Your task to perform on an android device: Open Google Maps Image 0: 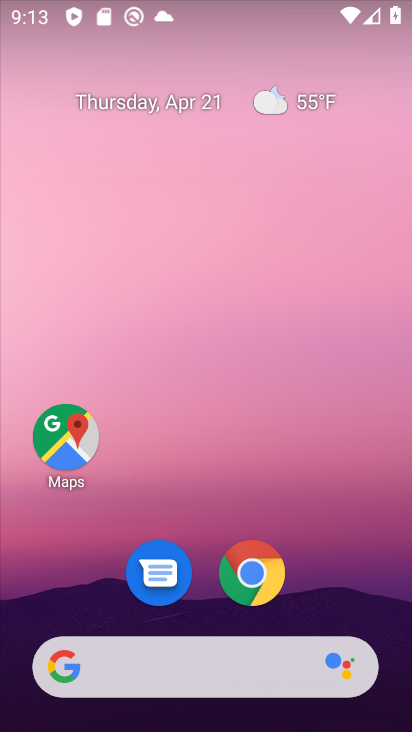
Step 0: click (83, 449)
Your task to perform on an android device: Open Google Maps Image 1: 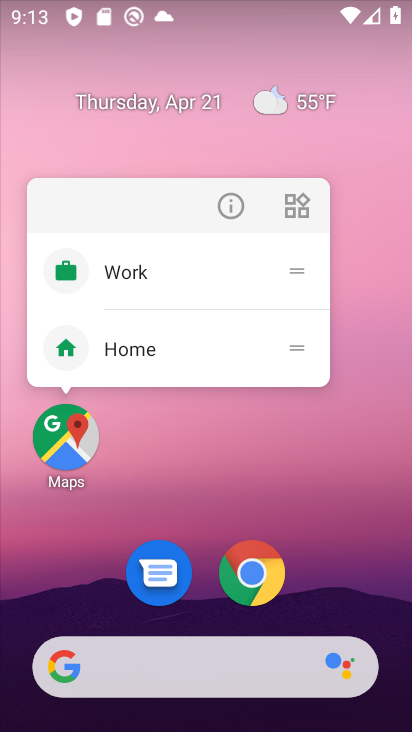
Step 1: click (70, 452)
Your task to perform on an android device: Open Google Maps Image 2: 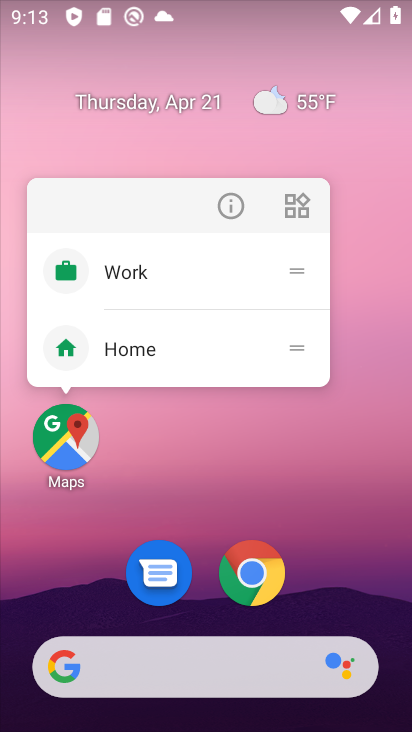
Step 2: click (60, 441)
Your task to perform on an android device: Open Google Maps Image 3: 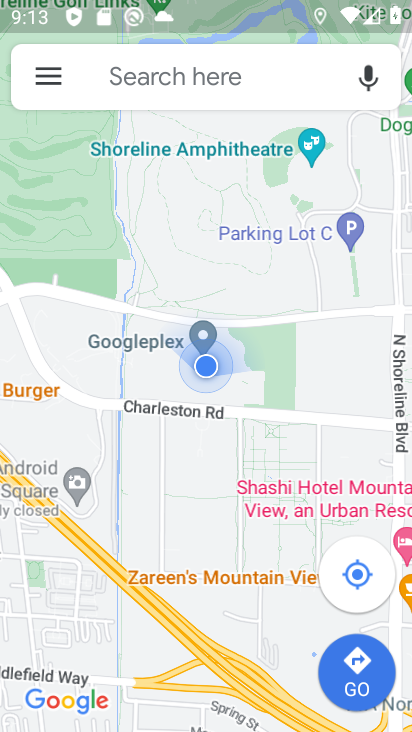
Step 3: task complete